Your task to perform on an android device: What's on my calendar tomorrow? Image 0: 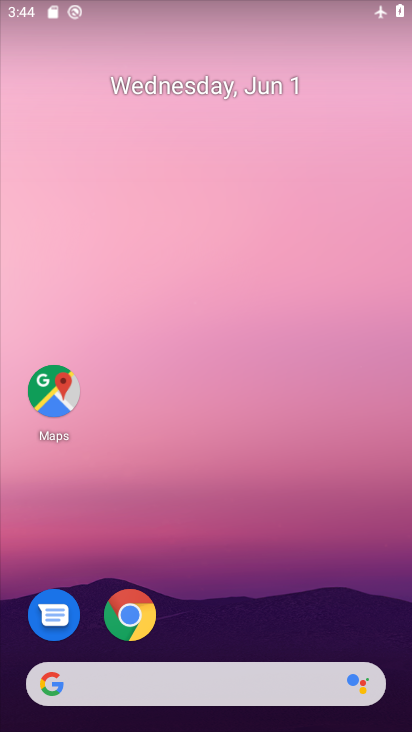
Step 0: drag from (286, 580) to (254, 114)
Your task to perform on an android device: What's on my calendar tomorrow? Image 1: 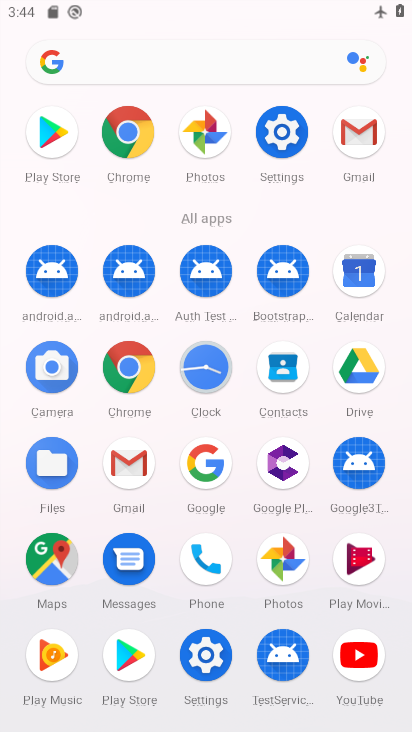
Step 1: click (355, 282)
Your task to perform on an android device: What's on my calendar tomorrow? Image 2: 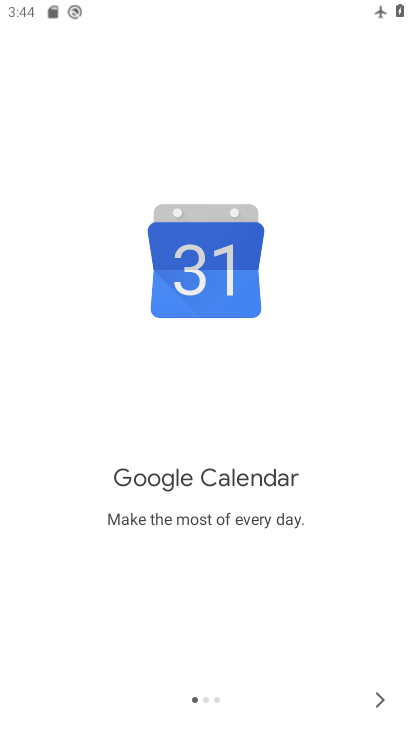
Step 2: click (388, 702)
Your task to perform on an android device: What's on my calendar tomorrow? Image 3: 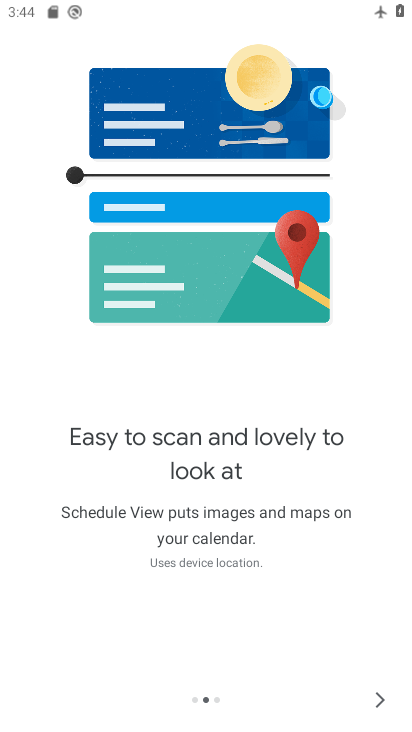
Step 3: click (388, 702)
Your task to perform on an android device: What's on my calendar tomorrow? Image 4: 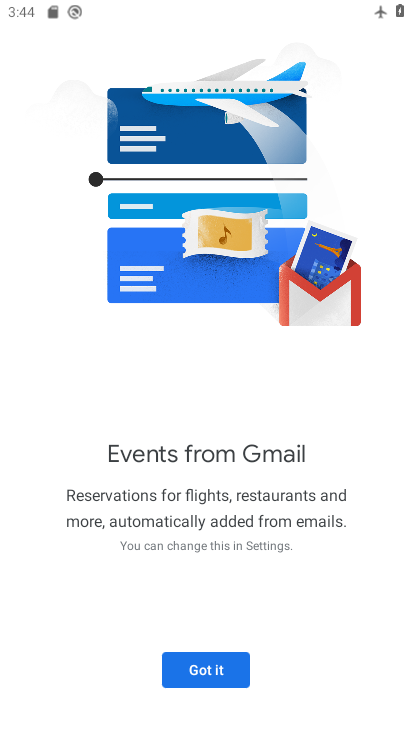
Step 4: click (232, 666)
Your task to perform on an android device: What's on my calendar tomorrow? Image 5: 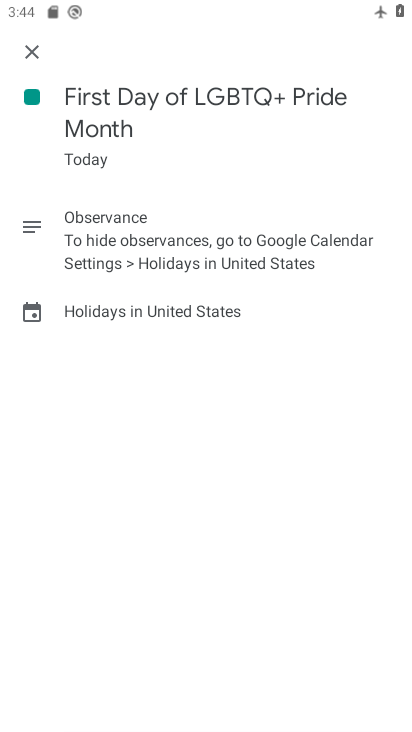
Step 5: click (35, 47)
Your task to perform on an android device: What's on my calendar tomorrow? Image 6: 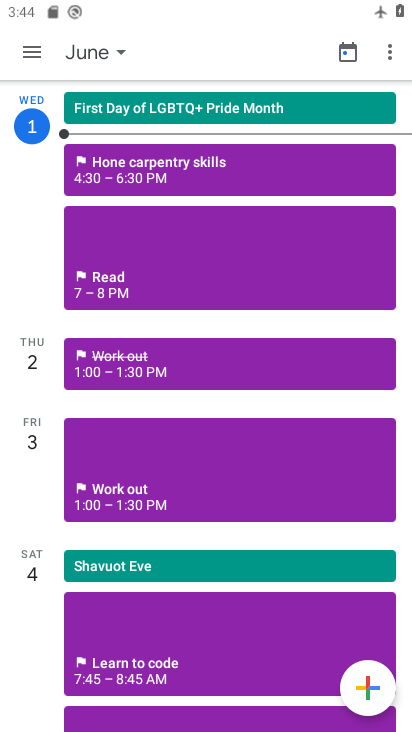
Step 6: drag from (121, 432) to (144, 229)
Your task to perform on an android device: What's on my calendar tomorrow? Image 7: 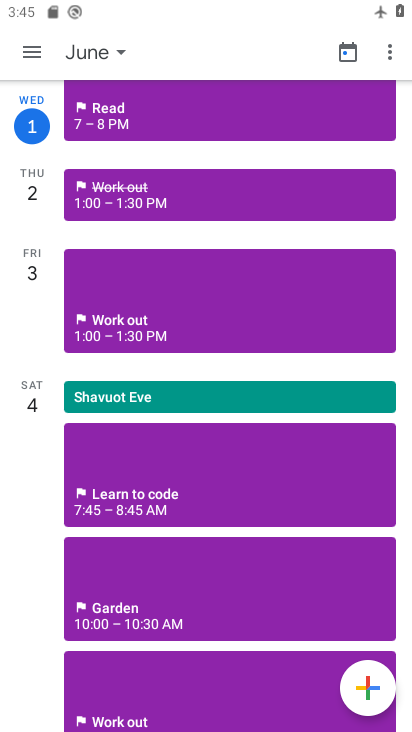
Step 7: click (34, 175)
Your task to perform on an android device: What's on my calendar tomorrow? Image 8: 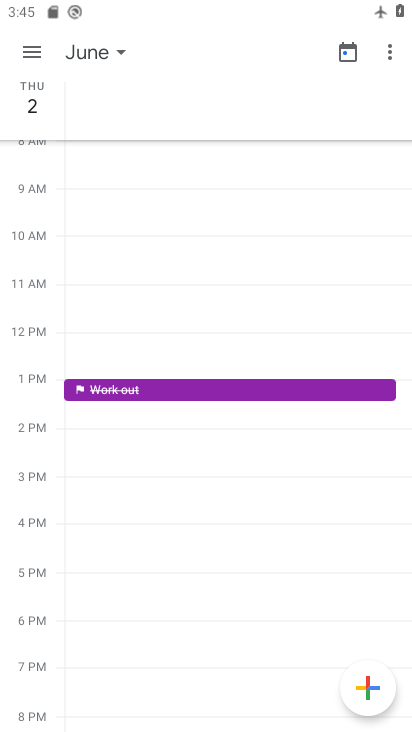
Step 8: task complete